Your task to perform on an android device: Clear the cart on newegg. Search for usb-c to usb-a on newegg, select the first entry, add it to the cart, then select checkout. Image 0: 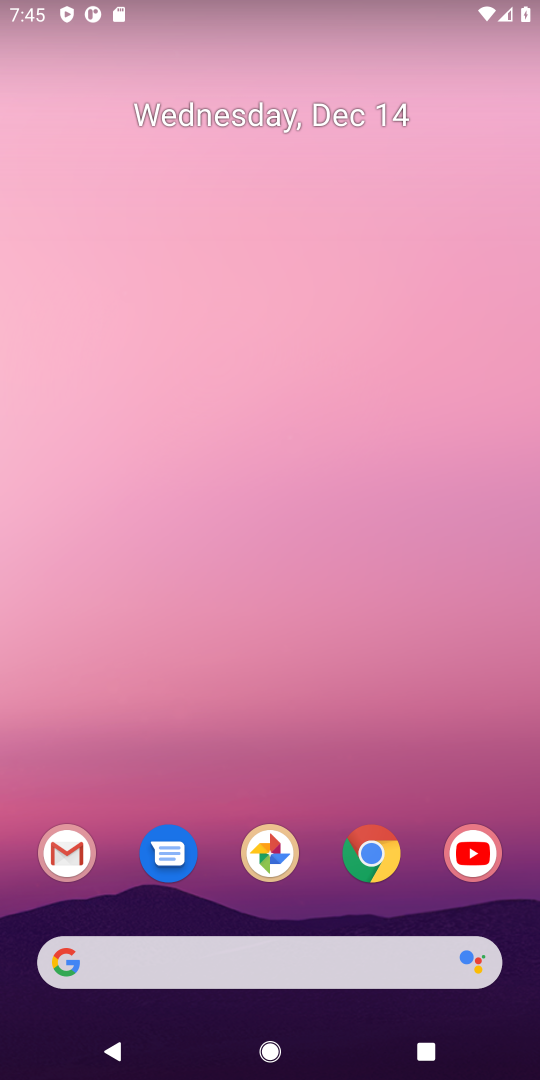
Step 0: click (377, 856)
Your task to perform on an android device: Clear the cart on newegg. Search for usb-c to usb-a on newegg, select the first entry, add it to the cart, then select checkout. Image 1: 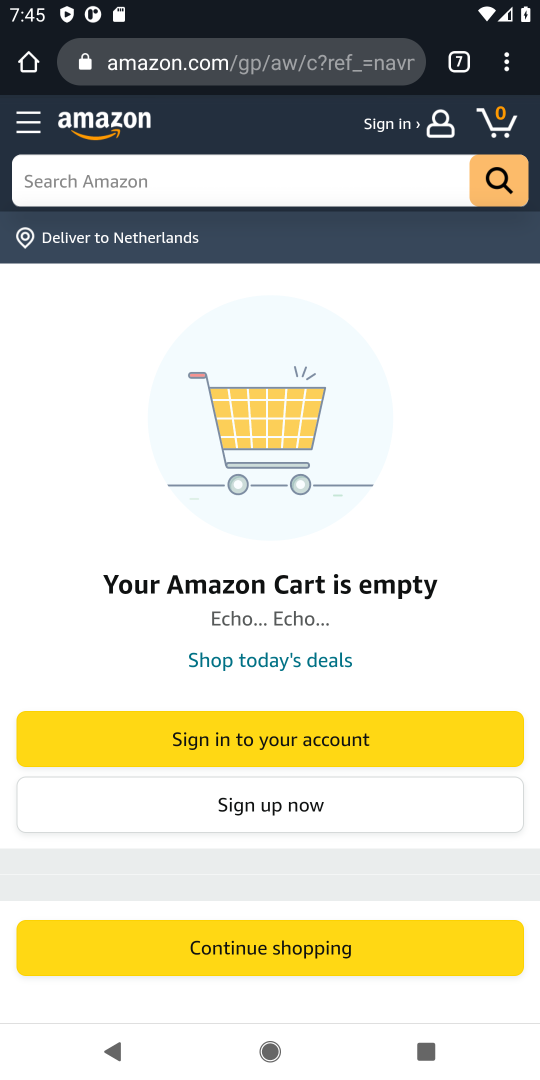
Step 1: click (459, 72)
Your task to perform on an android device: Clear the cart on newegg. Search for usb-c to usb-a on newegg, select the first entry, add it to the cart, then select checkout. Image 2: 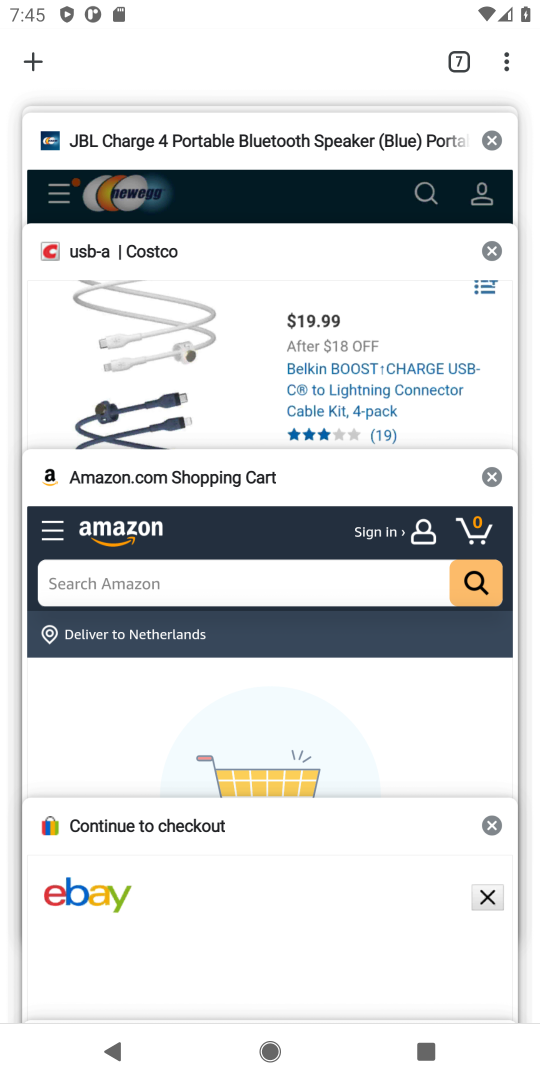
Step 2: click (321, 177)
Your task to perform on an android device: Clear the cart on newegg. Search for usb-c to usb-a on newegg, select the first entry, add it to the cart, then select checkout. Image 3: 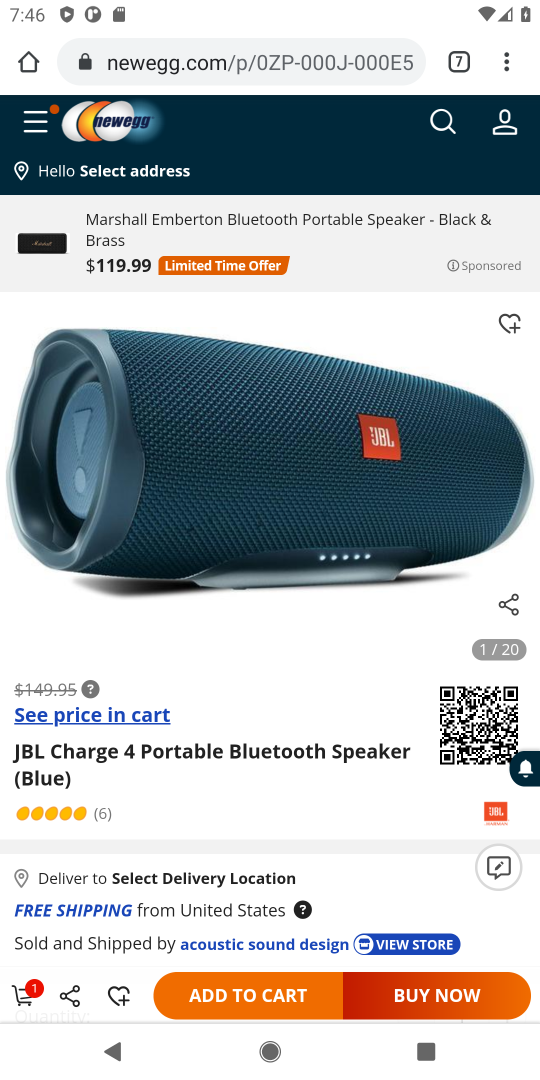
Step 3: click (440, 119)
Your task to perform on an android device: Clear the cart on newegg. Search for usb-c to usb-a on newegg, select the first entry, add it to the cart, then select checkout. Image 4: 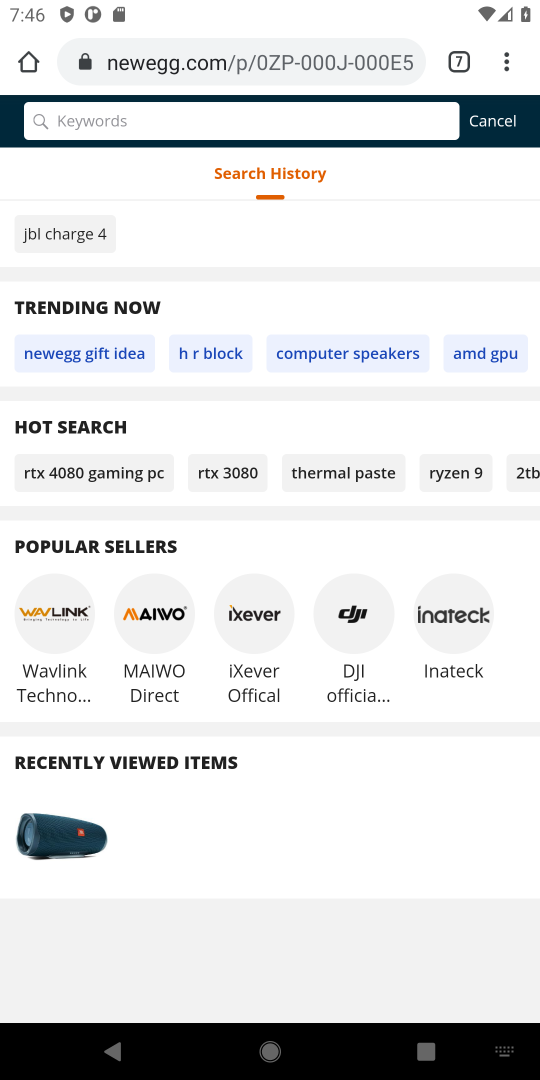
Step 4: type "usb-c to usb-a"
Your task to perform on an android device: Clear the cart on newegg. Search for usb-c to usb-a on newegg, select the first entry, add it to the cart, then select checkout. Image 5: 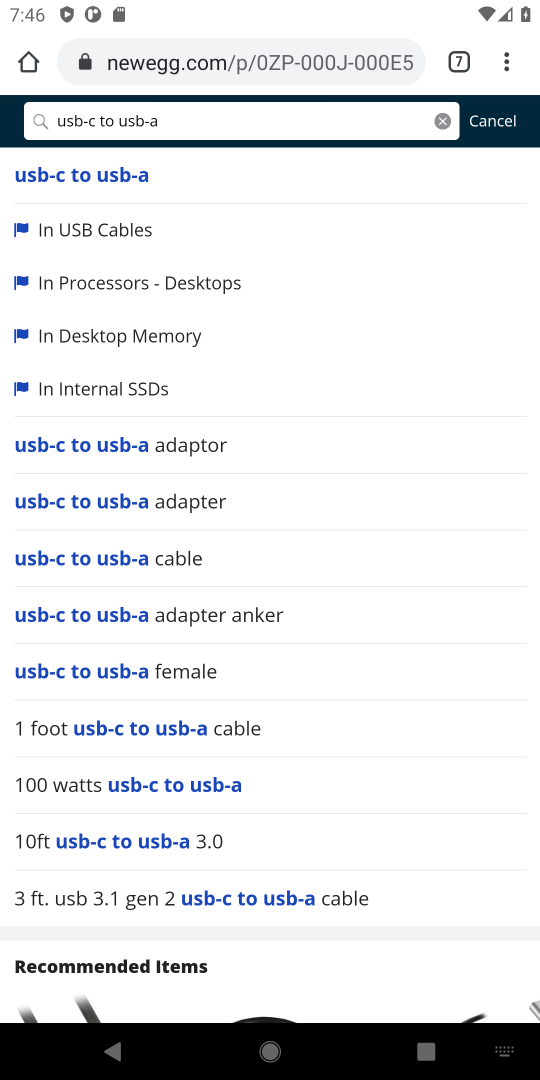
Step 5: click (66, 173)
Your task to perform on an android device: Clear the cart on newegg. Search for usb-c to usb-a on newegg, select the first entry, add it to the cart, then select checkout. Image 6: 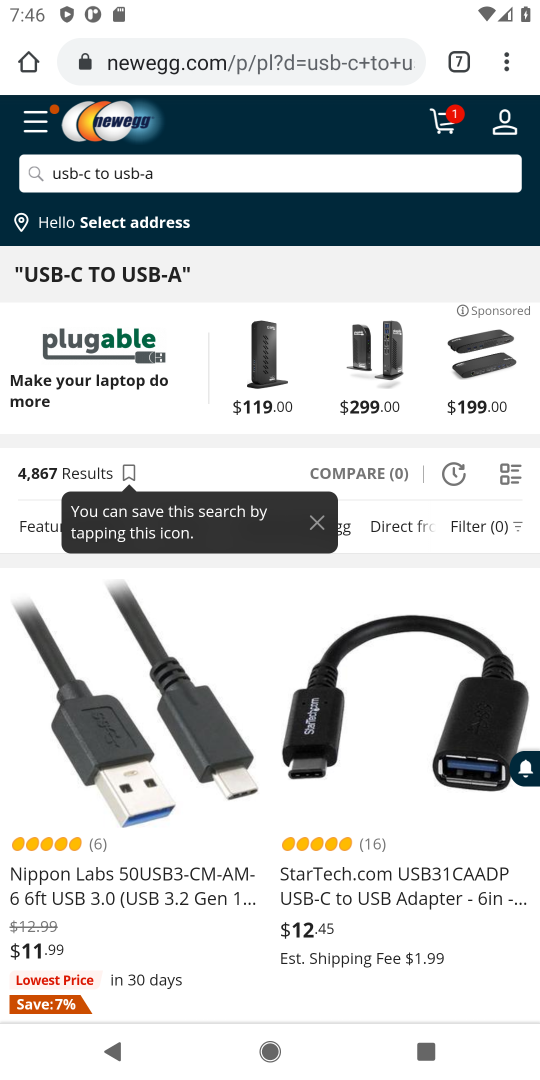
Step 6: click (166, 877)
Your task to perform on an android device: Clear the cart on newegg. Search for usb-c to usb-a on newegg, select the first entry, add it to the cart, then select checkout. Image 7: 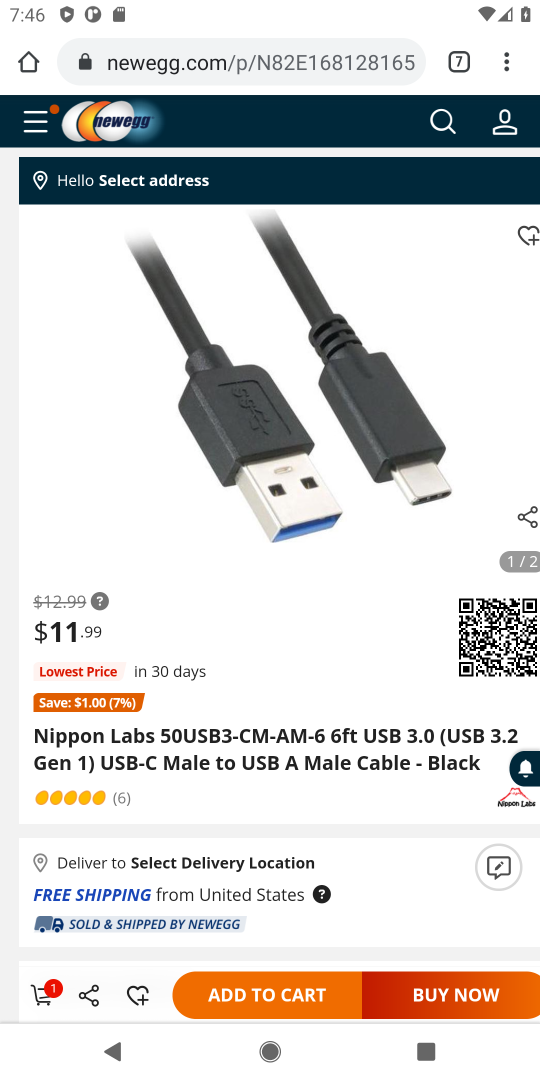
Step 7: click (273, 1003)
Your task to perform on an android device: Clear the cart on newegg. Search for usb-c to usb-a on newegg, select the first entry, add it to the cart, then select checkout. Image 8: 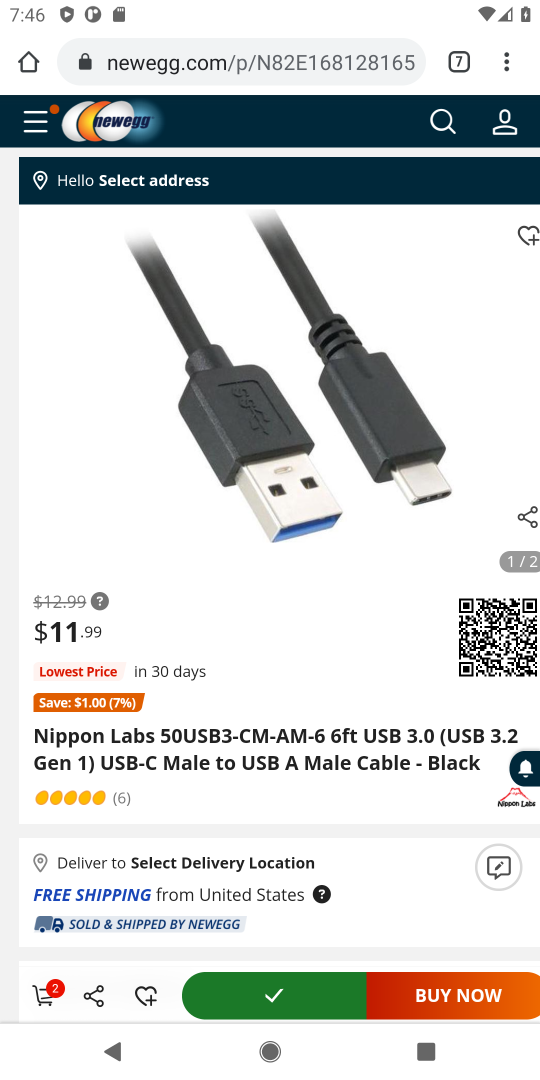
Step 8: task complete